Your task to perform on an android device: change the clock display to analog Image 0: 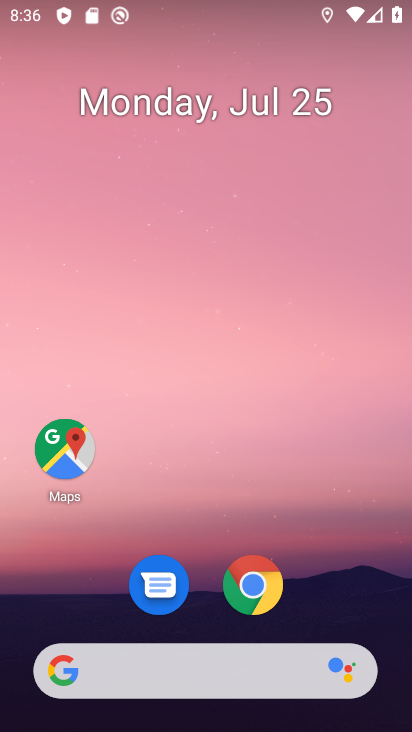
Step 0: press home button
Your task to perform on an android device: change the clock display to analog Image 1: 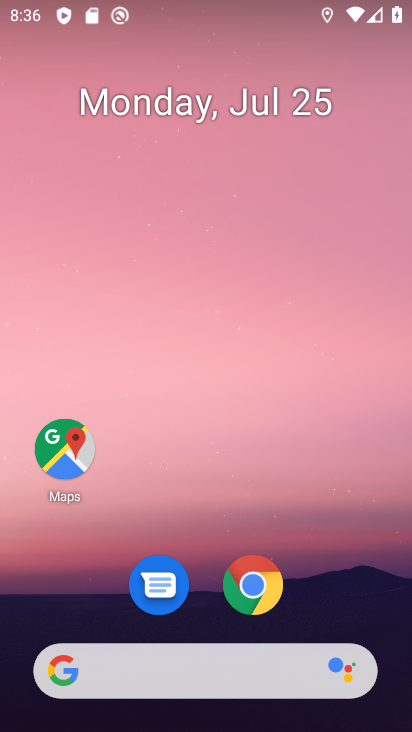
Step 1: click (349, 176)
Your task to perform on an android device: change the clock display to analog Image 2: 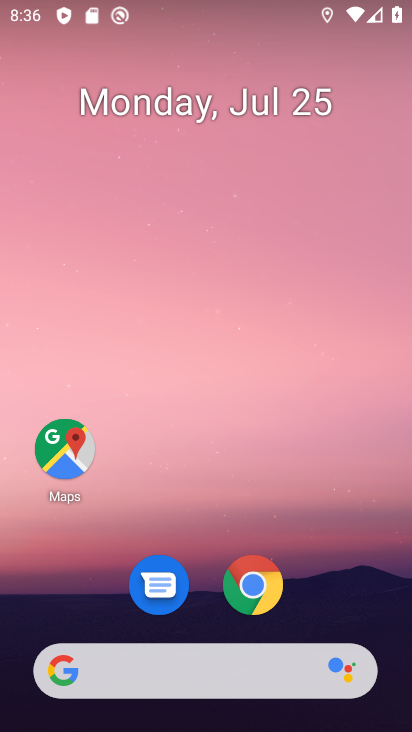
Step 2: drag from (186, 656) to (336, 159)
Your task to perform on an android device: change the clock display to analog Image 3: 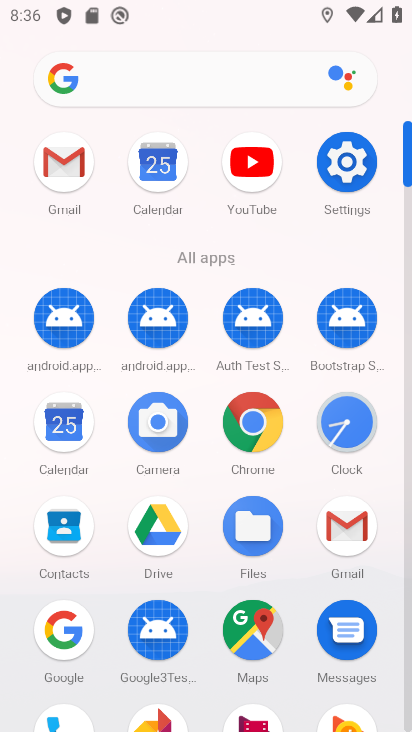
Step 3: click (348, 427)
Your task to perform on an android device: change the clock display to analog Image 4: 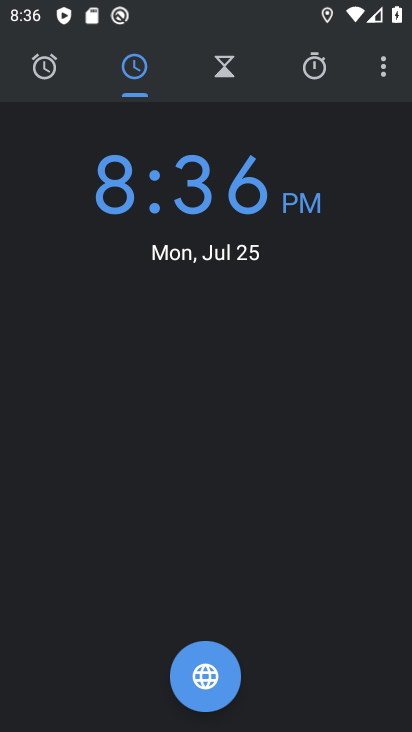
Step 4: click (381, 74)
Your task to perform on an android device: change the clock display to analog Image 5: 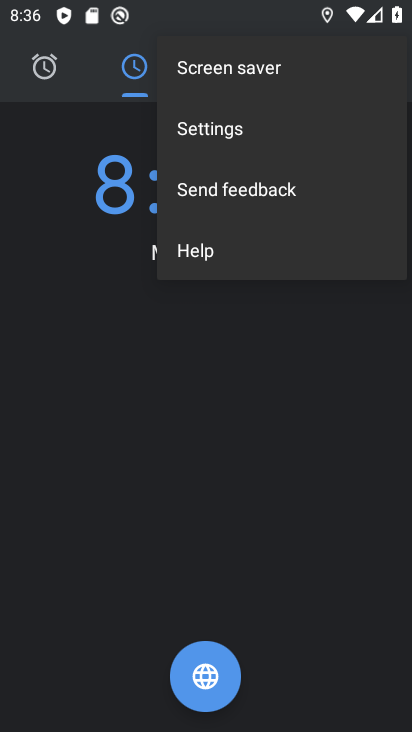
Step 5: click (246, 132)
Your task to perform on an android device: change the clock display to analog Image 6: 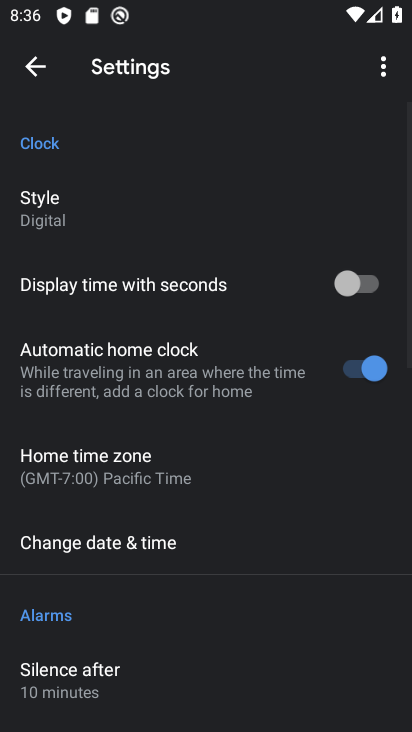
Step 6: click (51, 221)
Your task to perform on an android device: change the clock display to analog Image 7: 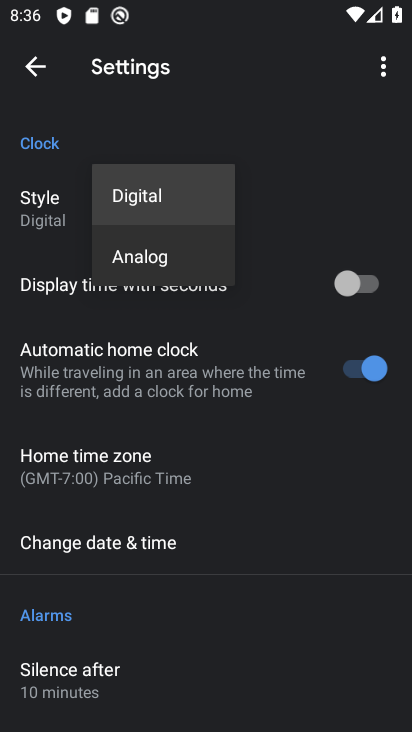
Step 7: click (134, 259)
Your task to perform on an android device: change the clock display to analog Image 8: 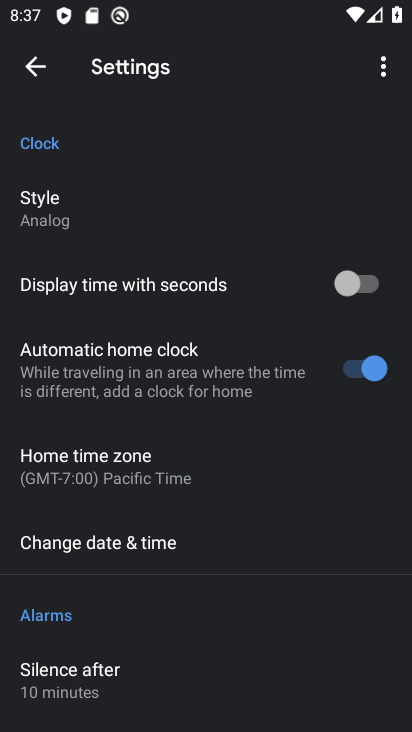
Step 8: task complete